Your task to perform on an android device: What's the weather today? Image 0: 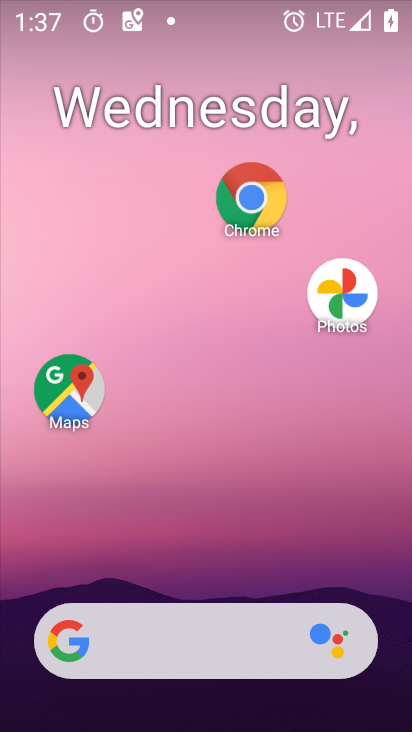
Step 0: drag from (236, 623) to (274, 97)
Your task to perform on an android device: What's the weather today? Image 1: 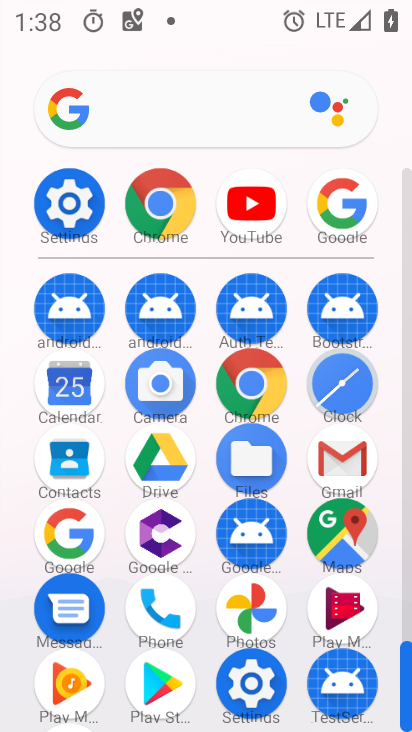
Step 1: click (85, 538)
Your task to perform on an android device: What's the weather today? Image 2: 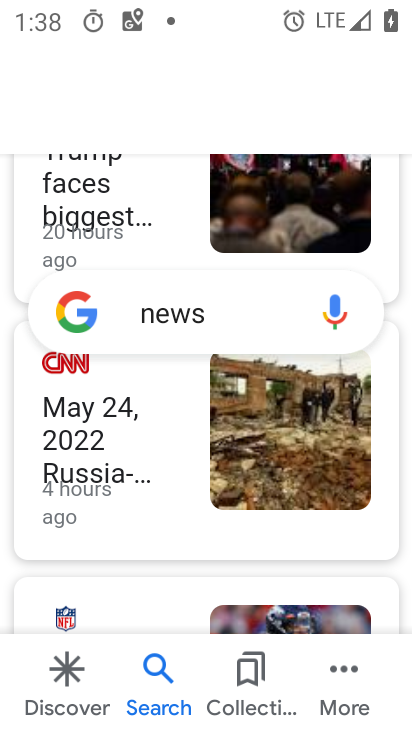
Step 2: drag from (200, 298) to (218, 656)
Your task to perform on an android device: What's the weather today? Image 3: 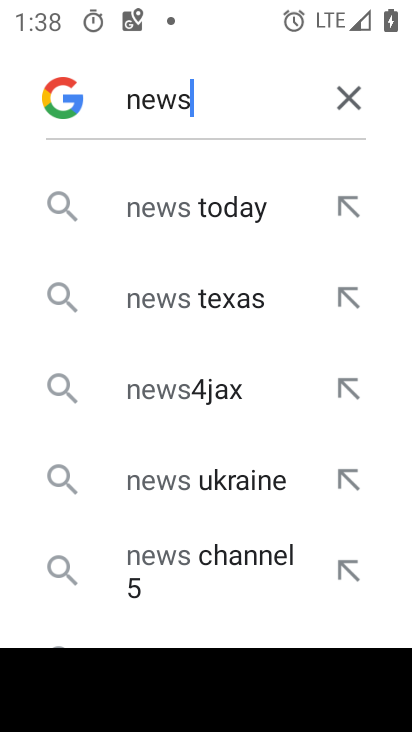
Step 3: click (343, 100)
Your task to perform on an android device: What's the weather today? Image 4: 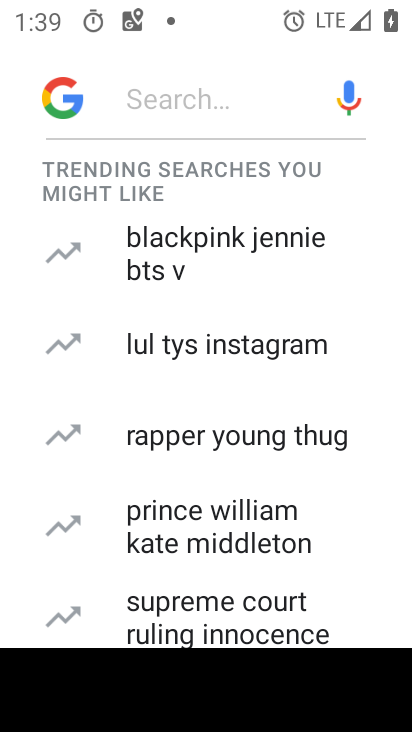
Step 4: click (187, 103)
Your task to perform on an android device: What's the weather today? Image 5: 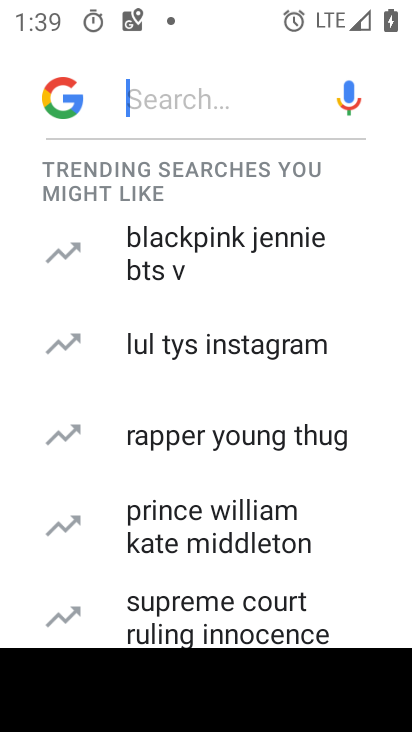
Step 5: type "weather"
Your task to perform on an android device: What's the weather today? Image 6: 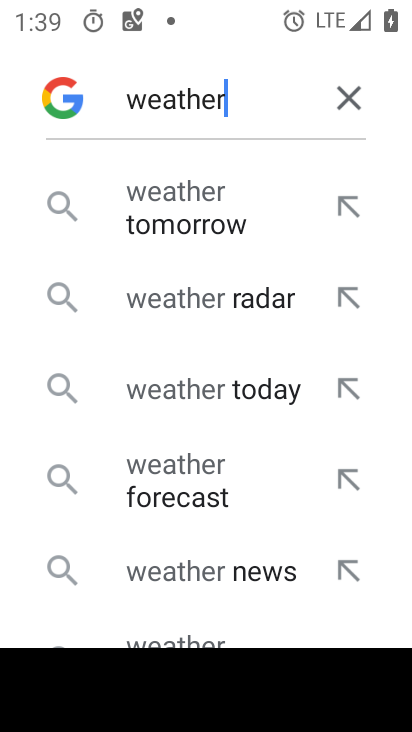
Step 6: click (245, 389)
Your task to perform on an android device: What's the weather today? Image 7: 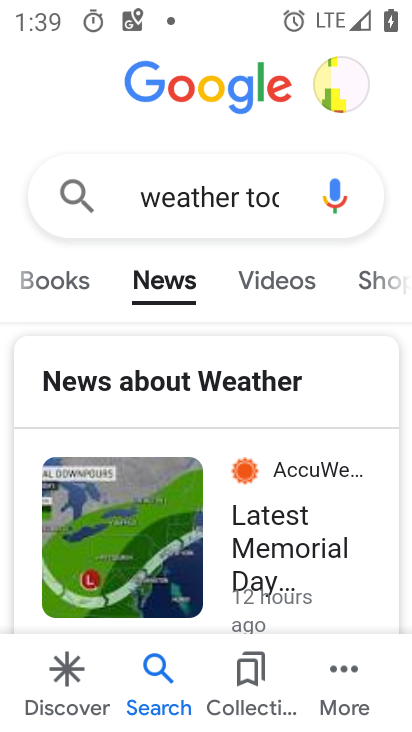
Step 7: drag from (131, 292) to (375, 294)
Your task to perform on an android device: What's the weather today? Image 8: 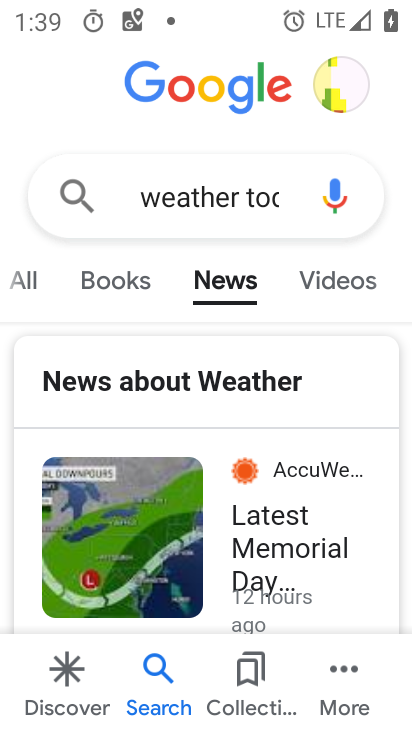
Step 8: drag from (60, 289) to (292, 291)
Your task to perform on an android device: What's the weather today? Image 9: 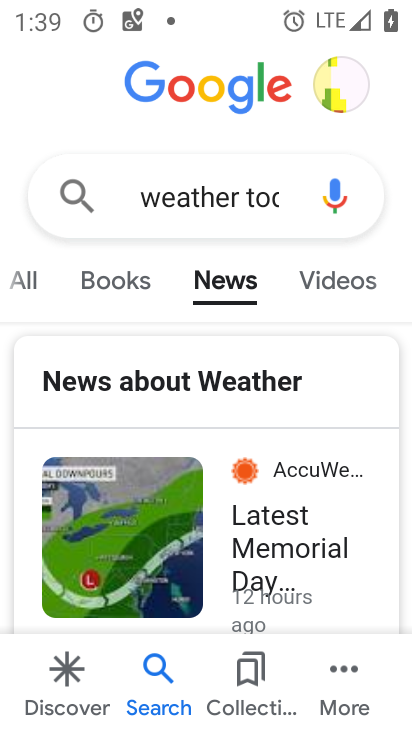
Step 9: click (43, 284)
Your task to perform on an android device: What's the weather today? Image 10: 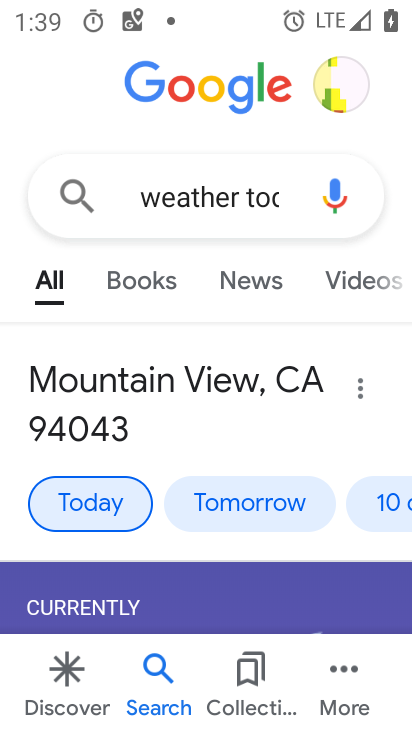
Step 10: task complete